Your task to perform on an android device: turn off data saver in the chrome app Image 0: 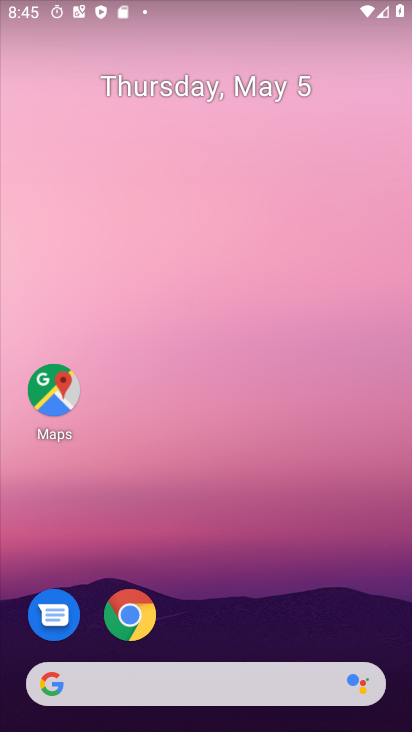
Step 0: click (138, 609)
Your task to perform on an android device: turn off data saver in the chrome app Image 1: 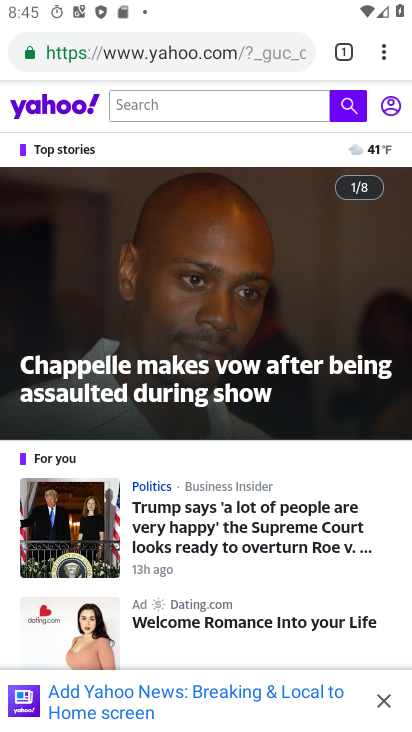
Step 1: click (386, 53)
Your task to perform on an android device: turn off data saver in the chrome app Image 2: 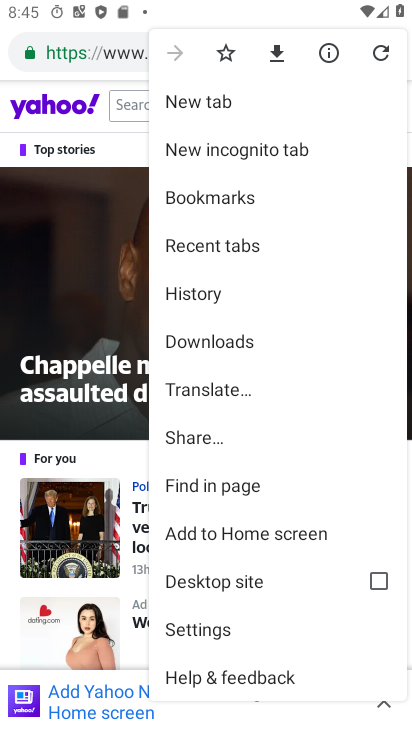
Step 2: click (190, 632)
Your task to perform on an android device: turn off data saver in the chrome app Image 3: 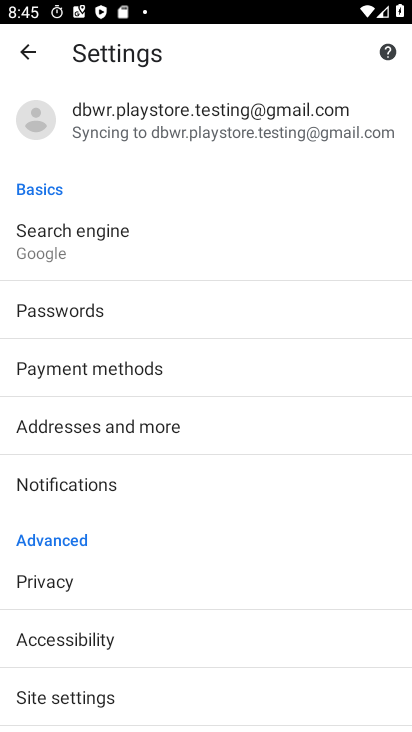
Step 3: drag from (160, 545) to (204, 239)
Your task to perform on an android device: turn off data saver in the chrome app Image 4: 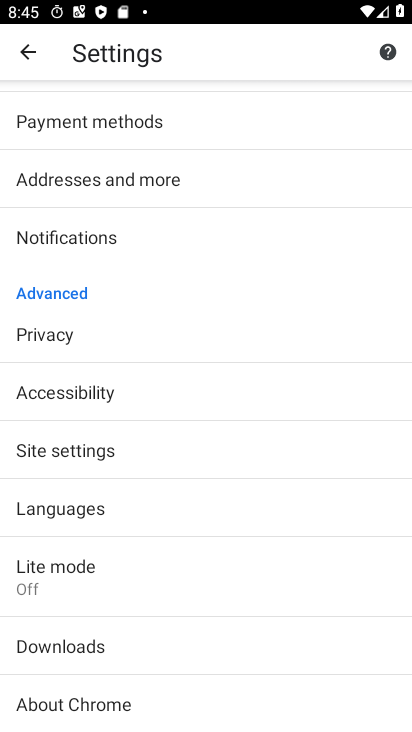
Step 4: click (80, 580)
Your task to perform on an android device: turn off data saver in the chrome app Image 5: 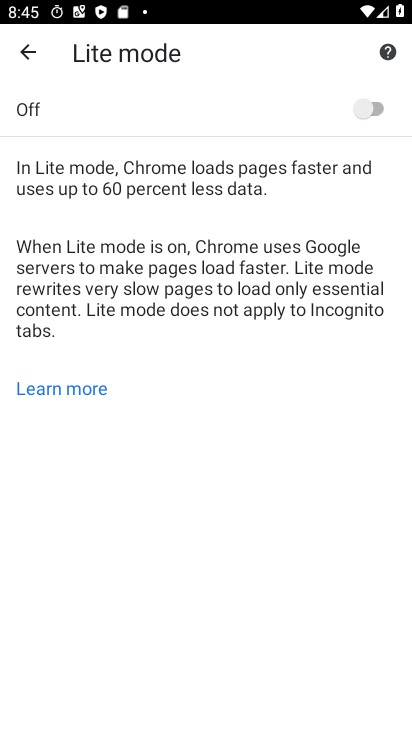
Step 5: task complete